Your task to perform on an android device: change text size in settings app Image 0: 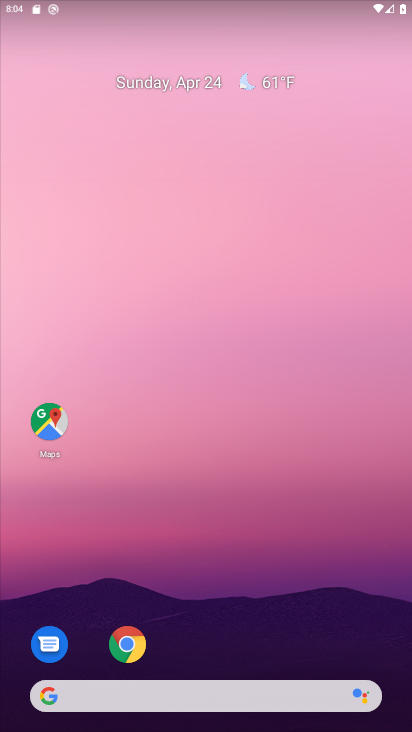
Step 0: drag from (246, 537) to (233, 32)
Your task to perform on an android device: change text size in settings app Image 1: 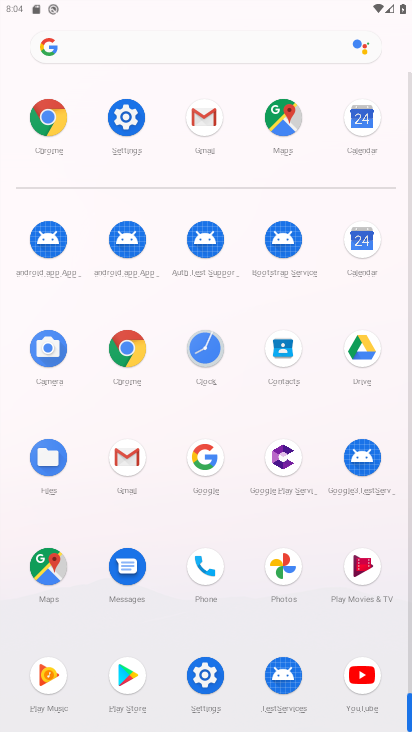
Step 1: click (204, 671)
Your task to perform on an android device: change text size in settings app Image 2: 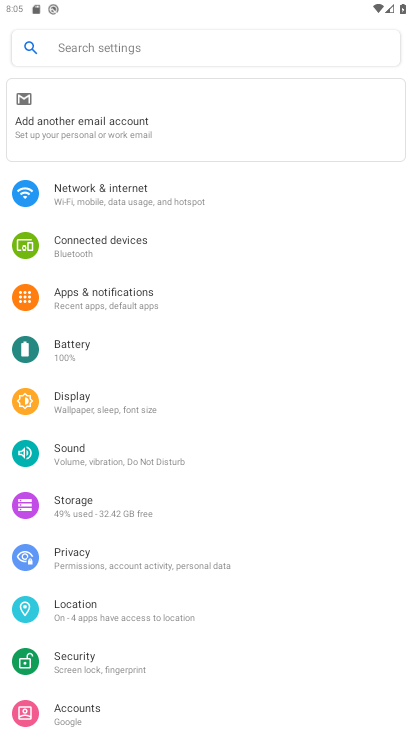
Step 2: click (92, 403)
Your task to perform on an android device: change text size in settings app Image 3: 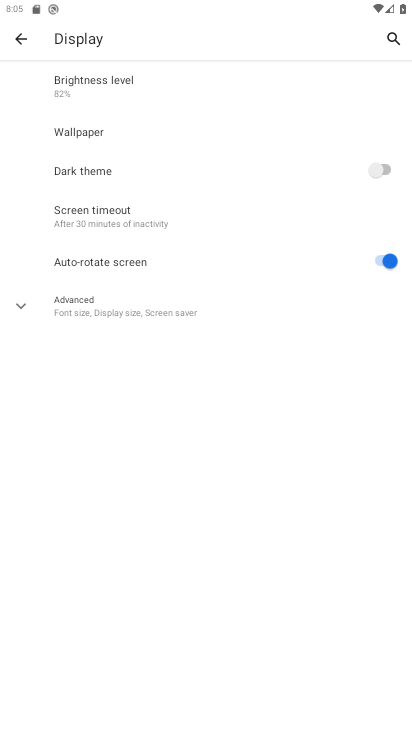
Step 3: click (47, 299)
Your task to perform on an android device: change text size in settings app Image 4: 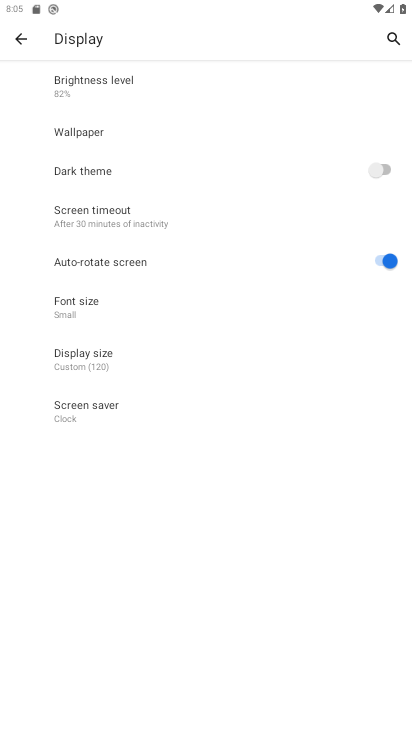
Step 4: click (97, 305)
Your task to perform on an android device: change text size in settings app Image 5: 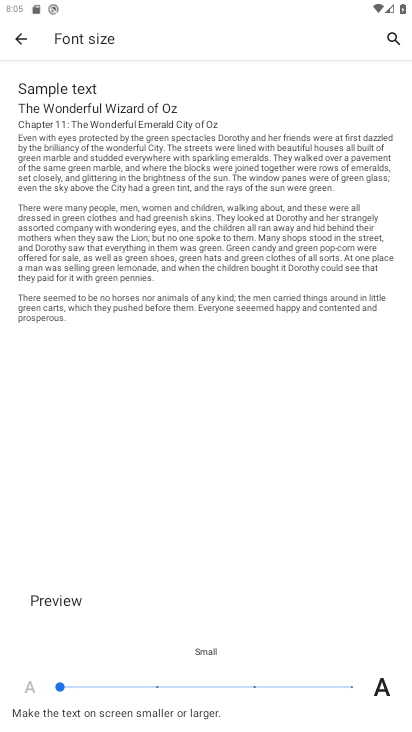
Step 5: drag from (203, 525) to (193, 155)
Your task to perform on an android device: change text size in settings app Image 6: 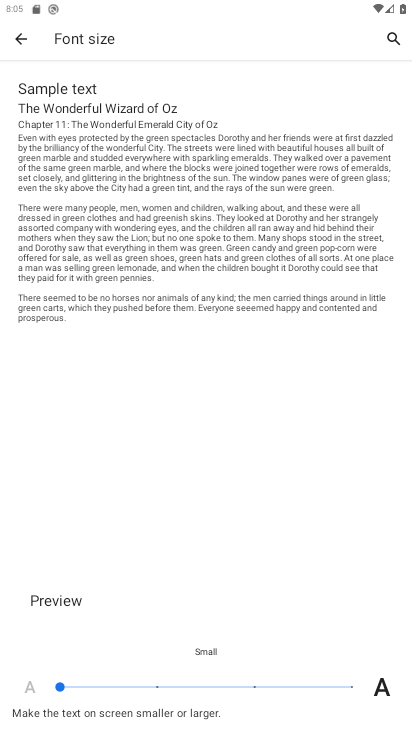
Step 6: click (151, 690)
Your task to perform on an android device: change text size in settings app Image 7: 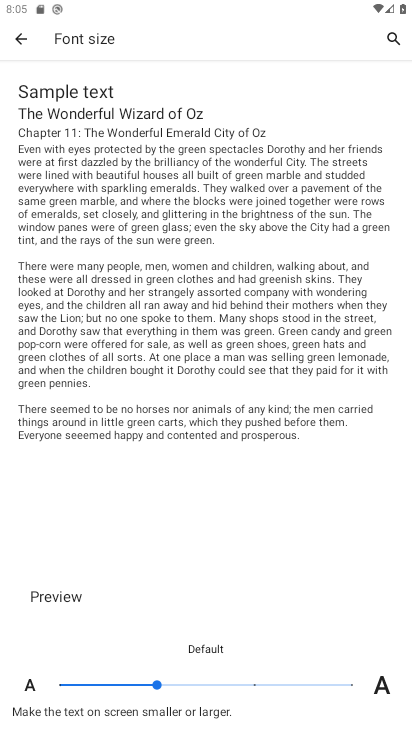
Step 7: task complete